Your task to perform on an android device: open a new tab in the chrome app Image 0: 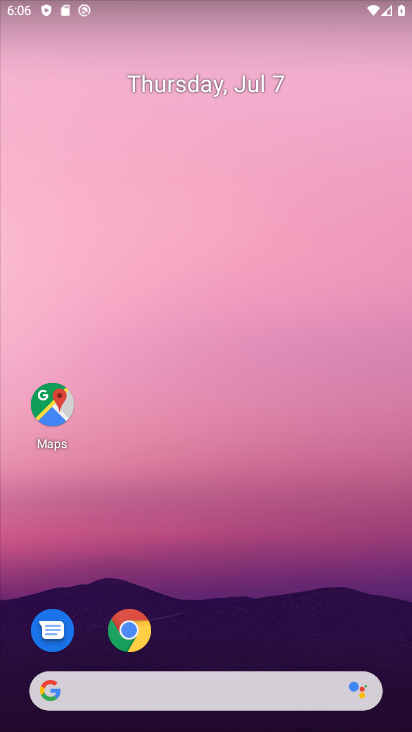
Step 0: click (124, 630)
Your task to perform on an android device: open a new tab in the chrome app Image 1: 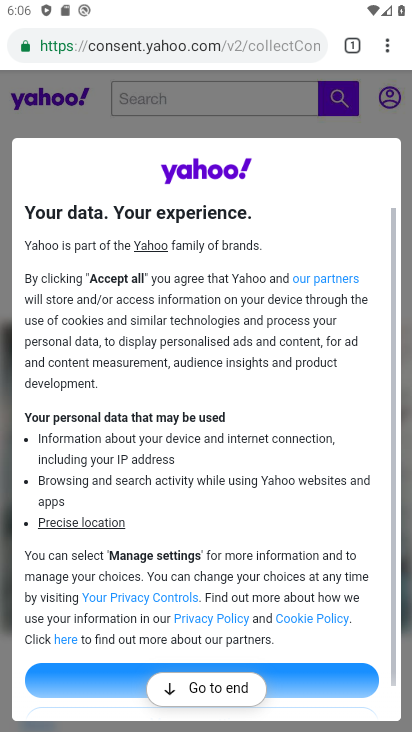
Step 1: click (344, 44)
Your task to perform on an android device: open a new tab in the chrome app Image 2: 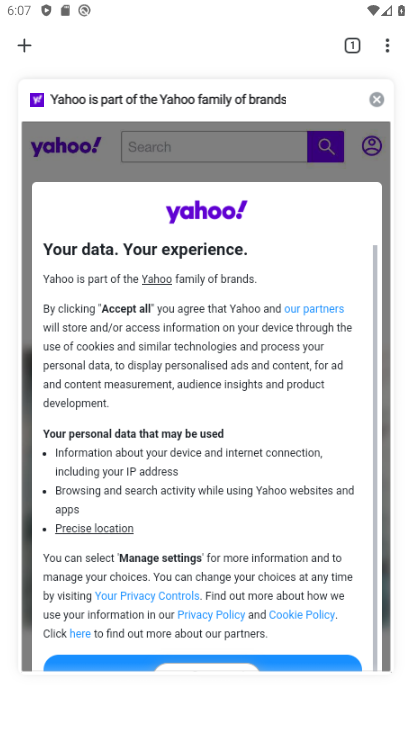
Step 2: click (28, 47)
Your task to perform on an android device: open a new tab in the chrome app Image 3: 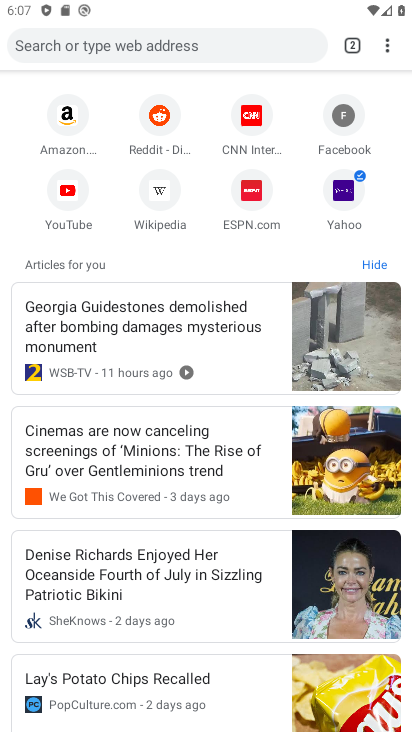
Step 3: task complete